Your task to perform on an android device: change text size in settings app Image 0: 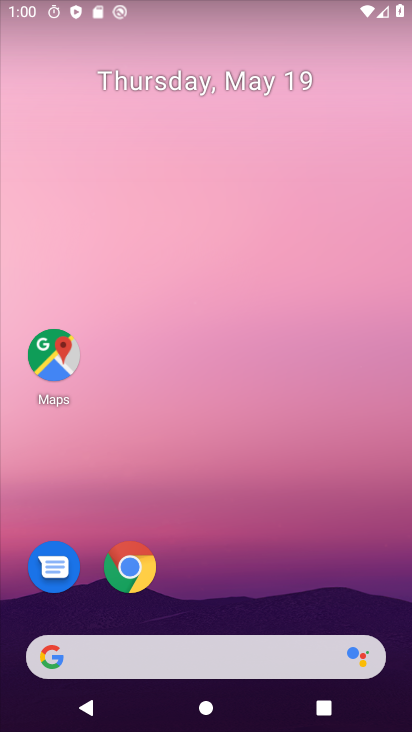
Step 0: press home button
Your task to perform on an android device: change text size in settings app Image 1: 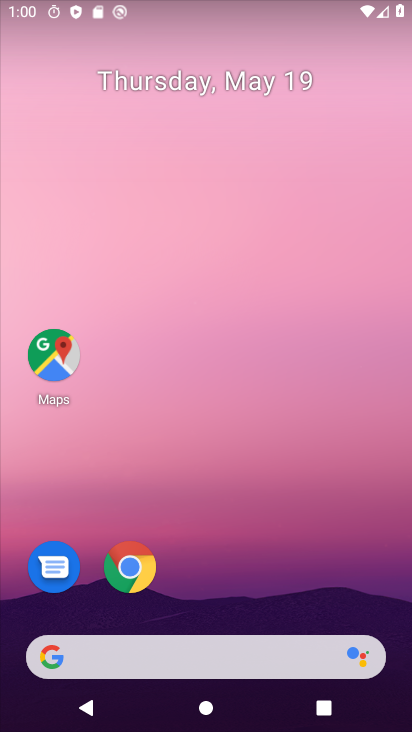
Step 1: drag from (172, 661) to (308, 241)
Your task to perform on an android device: change text size in settings app Image 2: 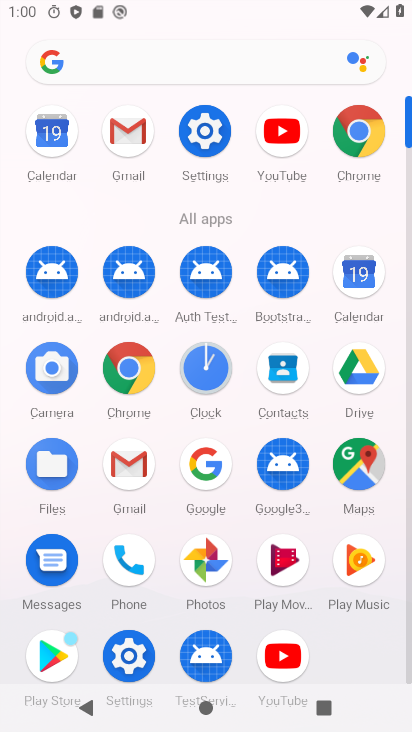
Step 2: click (196, 129)
Your task to perform on an android device: change text size in settings app Image 3: 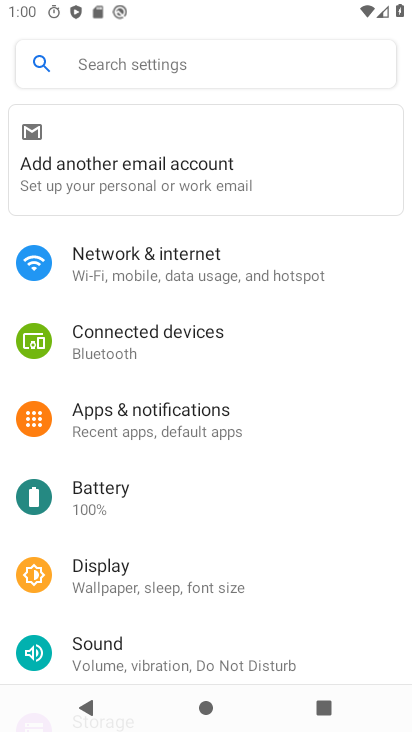
Step 3: click (201, 579)
Your task to perform on an android device: change text size in settings app Image 4: 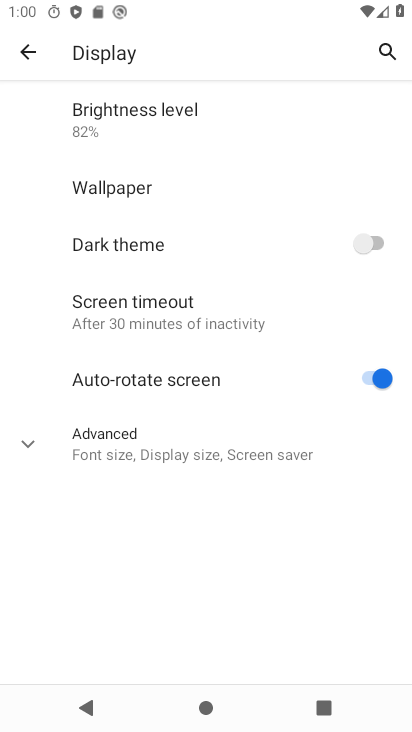
Step 4: click (204, 457)
Your task to perform on an android device: change text size in settings app Image 5: 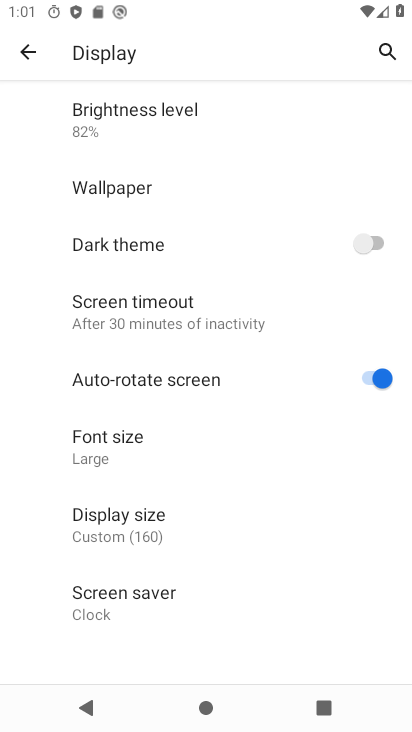
Step 5: click (126, 450)
Your task to perform on an android device: change text size in settings app Image 6: 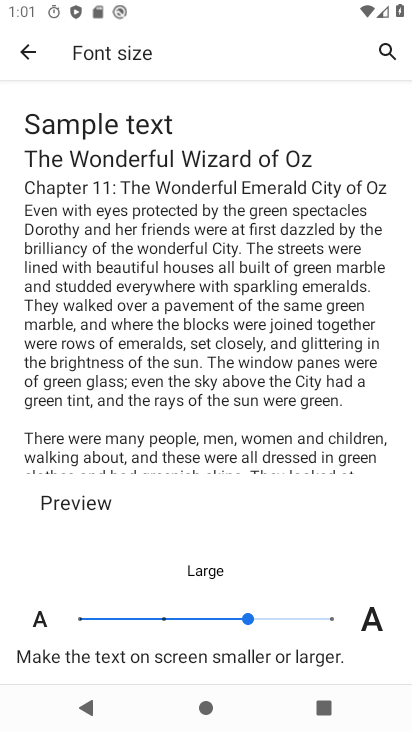
Step 6: click (167, 622)
Your task to perform on an android device: change text size in settings app Image 7: 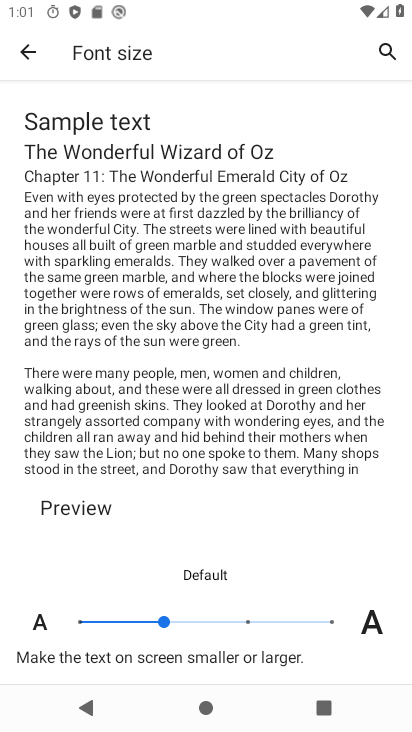
Step 7: task complete